Your task to perform on an android device: change notifications settings Image 0: 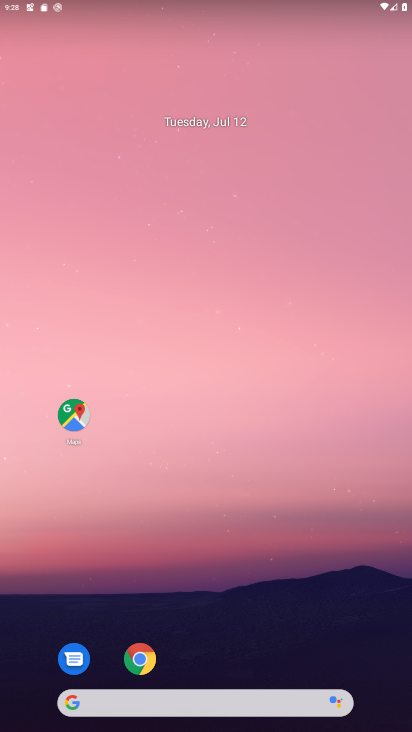
Step 0: drag from (291, 621) to (334, 39)
Your task to perform on an android device: change notifications settings Image 1: 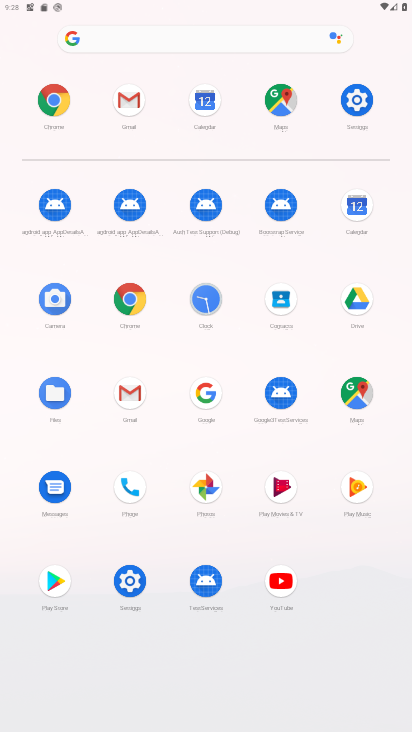
Step 1: click (136, 584)
Your task to perform on an android device: change notifications settings Image 2: 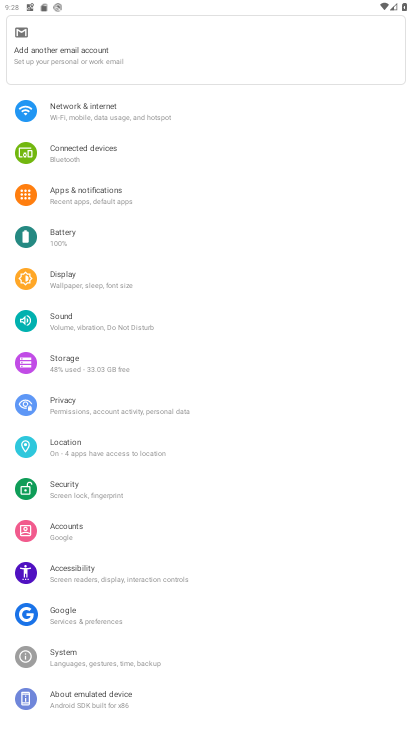
Step 2: click (93, 188)
Your task to perform on an android device: change notifications settings Image 3: 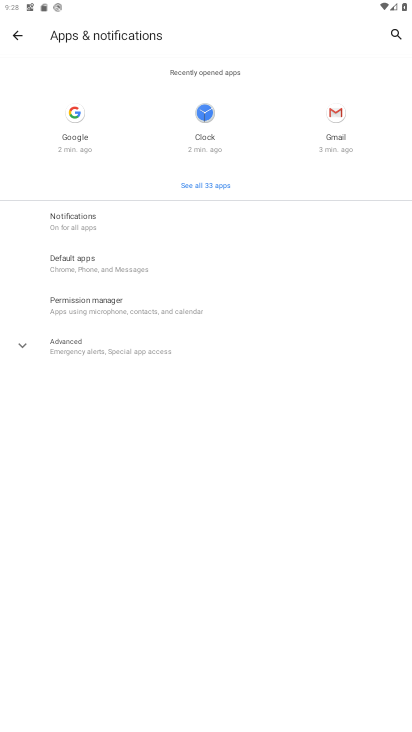
Step 3: click (54, 222)
Your task to perform on an android device: change notifications settings Image 4: 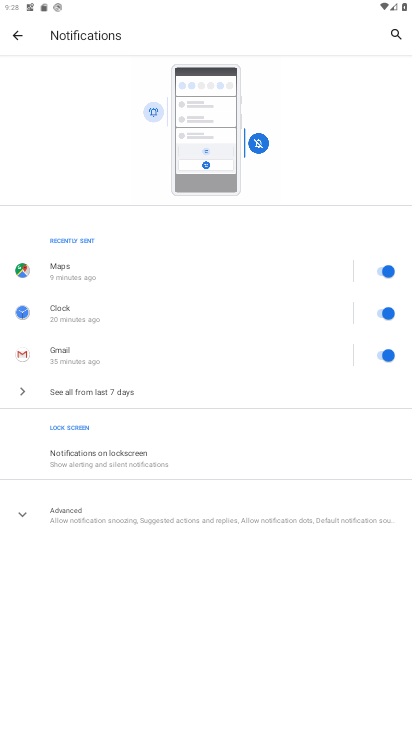
Step 4: task complete